Your task to perform on an android device: Go to eBay Image 0: 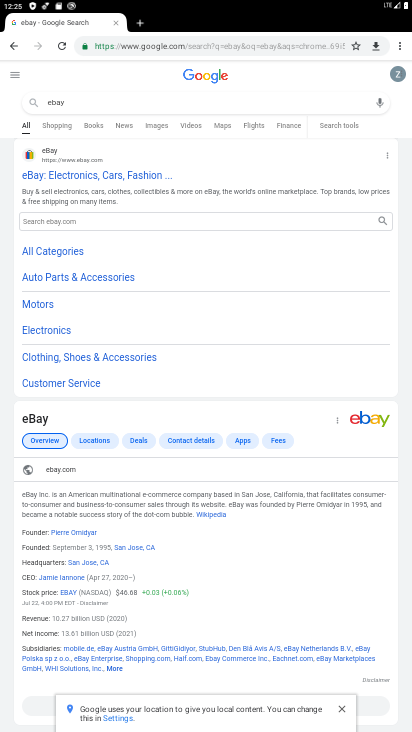
Step 0: press home button
Your task to perform on an android device: Go to eBay Image 1: 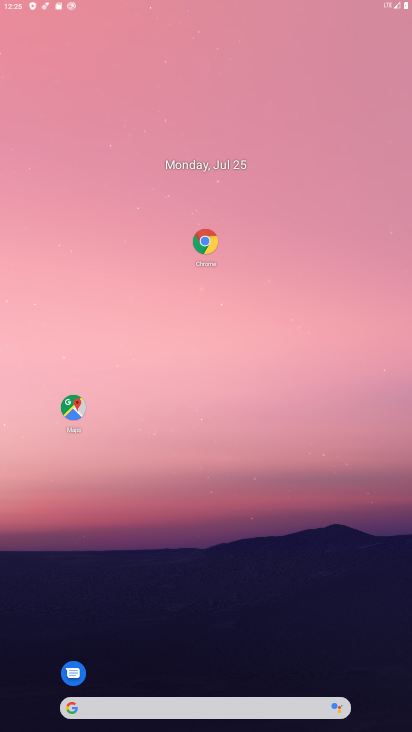
Step 1: drag from (228, 717) to (349, 56)
Your task to perform on an android device: Go to eBay Image 2: 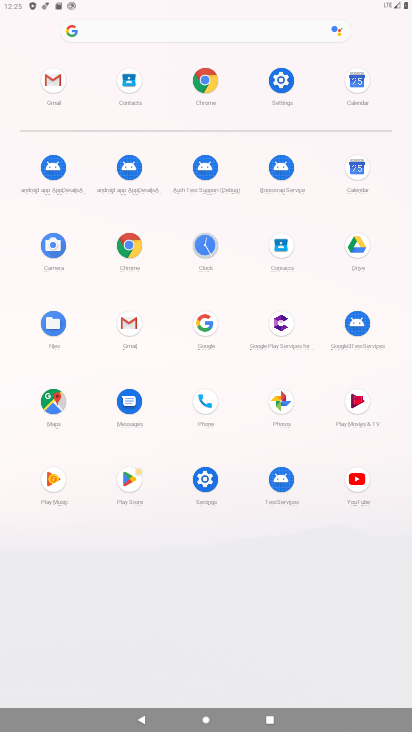
Step 2: click (124, 252)
Your task to perform on an android device: Go to eBay Image 3: 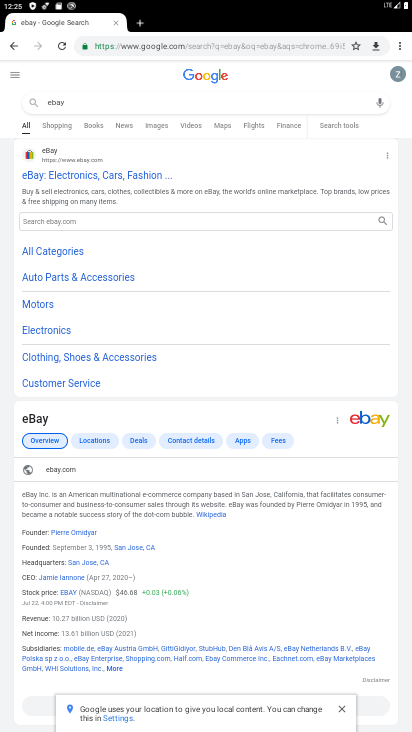
Step 3: task complete